Your task to perform on an android device: Go to settings Image 0: 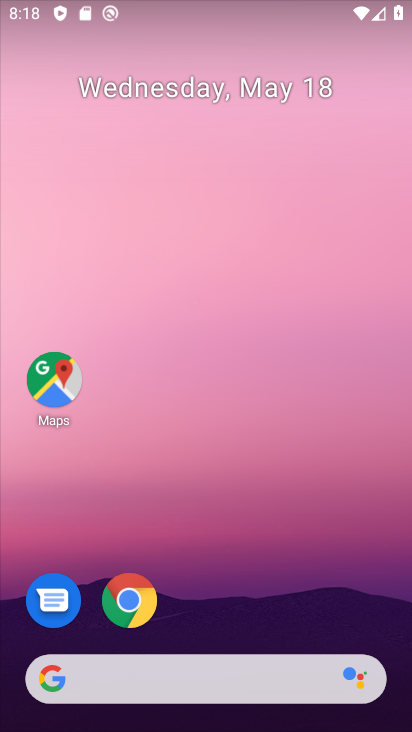
Step 0: drag from (39, 597) to (277, 172)
Your task to perform on an android device: Go to settings Image 1: 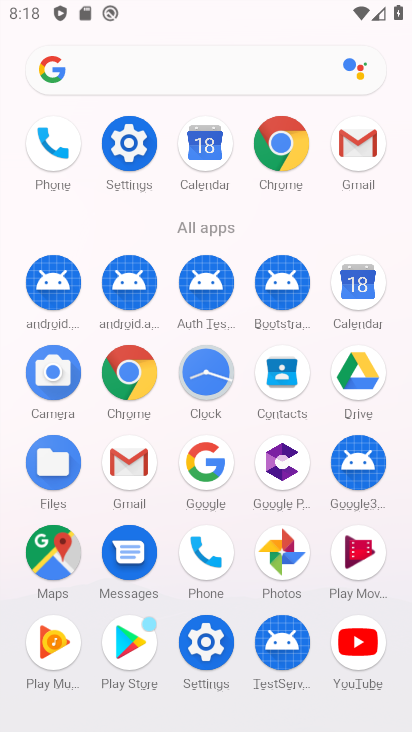
Step 1: click (141, 149)
Your task to perform on an android device: Go to settings Image 2: 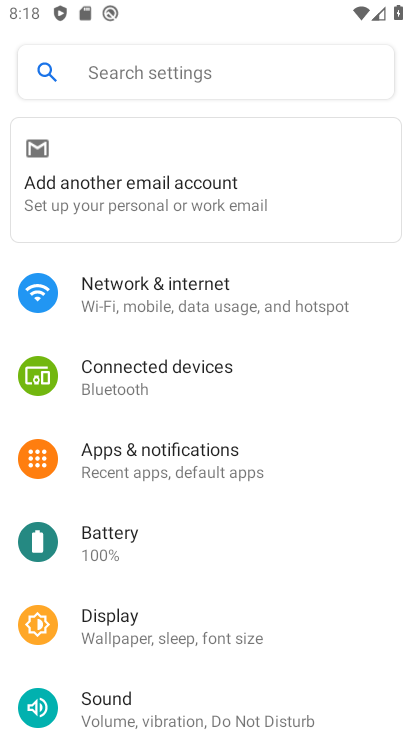
Step 2: task complete